Your task to perform on an android device: turn on improve location accuracy Image 0: 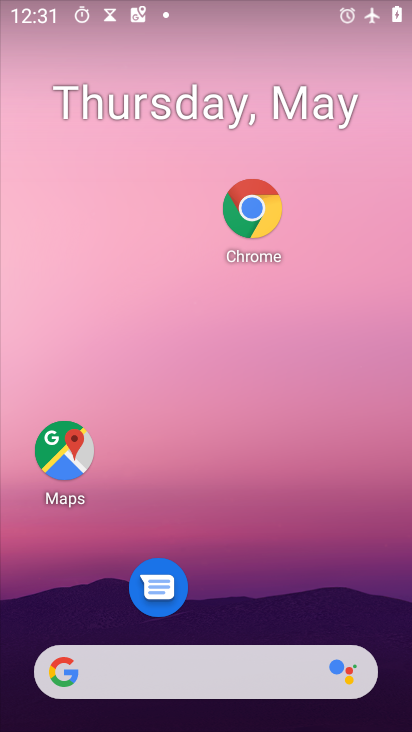
Step 0: drag from (248, 592) to (210, 36)
Your task to perform on an android device: turn on improve location accuracy Image 1: 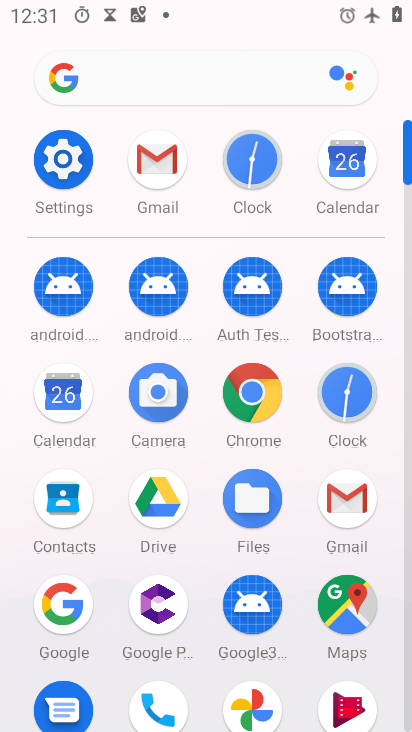
Step 1: click (57, 167)
Your task to perform on an android device: turn on improve location accuracy Image 2: 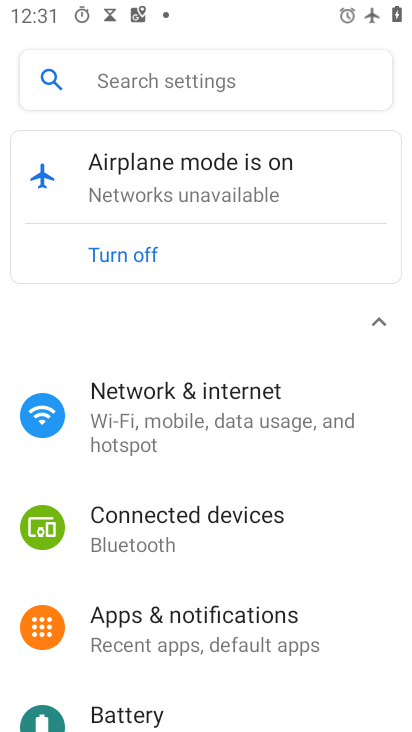
Step 2: press home button
Your task to perform on an android device: turn on improve location accuracy Image 3: 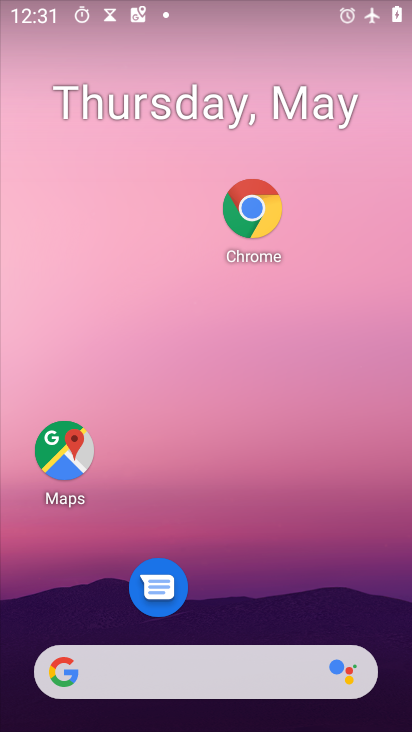
Step 3: drag from (195, 604) to (203, 133)
Your task to perform on an android device: turn on improve location accuracy Image 4: 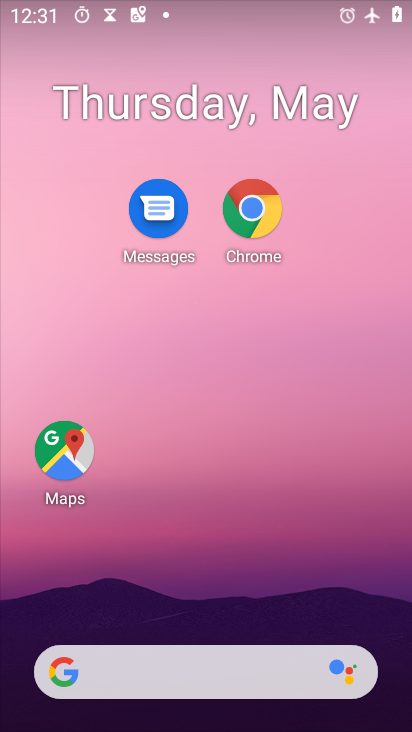
Step 4: drag from (215, 520) to (221, 9)
Your task to perform on an android device: turn on improve location accuracy Image 5: 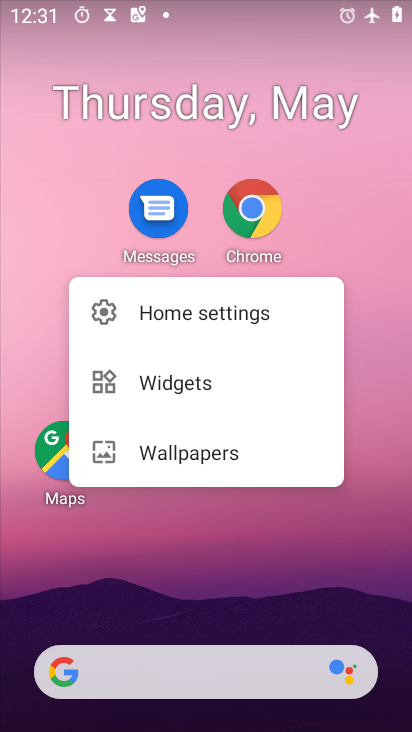
Step 5: click (205, 591)
Your task to perform on an android device: turn on improve location accuracy Image 6: 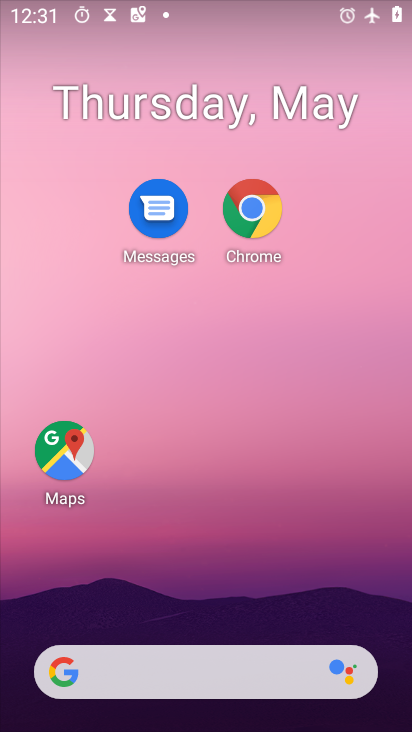
Step 6: drag from (208, 589) to (228, 5)
Your task to perform on an android device: turn on improve location accuracy Image 7: 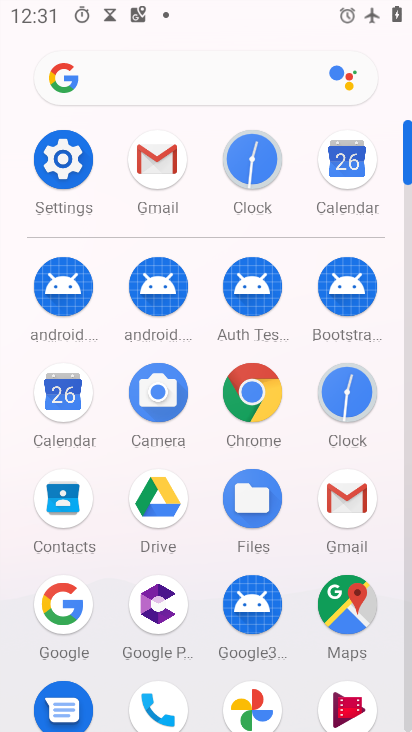
Step 7: click (56, 167)
Your task to perform on an android device: turn on improve location accuracy Image 8: 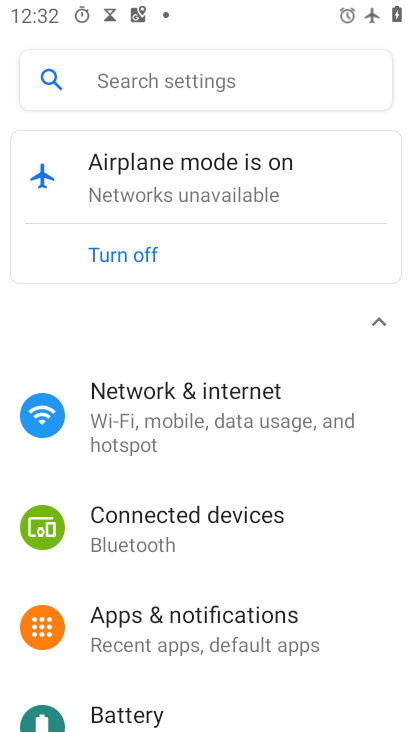
Step 8: drag from (186, 604) to (216, 347)
Your task to perform on an android device: turn on improve location accuracy Image 9: 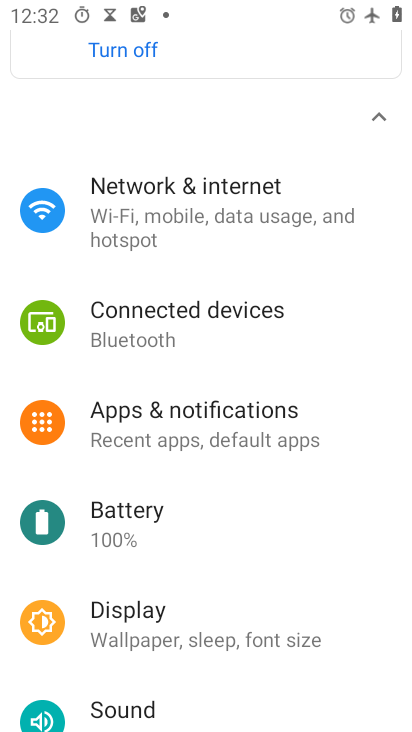
Step 9: drag from (221, 692) to (179, 330)
Your task to perform on an android device: turn on improve location accuracy Image 10: 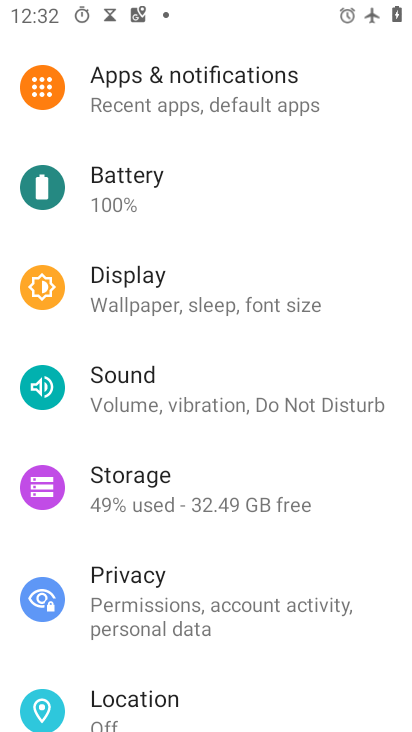
Step 10: click (147, 711)
Your task to perform on an android device: turn on improve location accuracy Image 11: 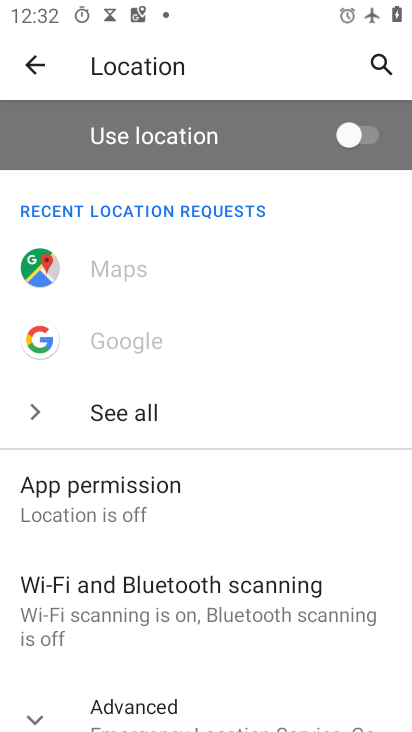
Step 11: click (122, 721)
Your task to perform on an android device: turn on improve location accuracy Image 12: 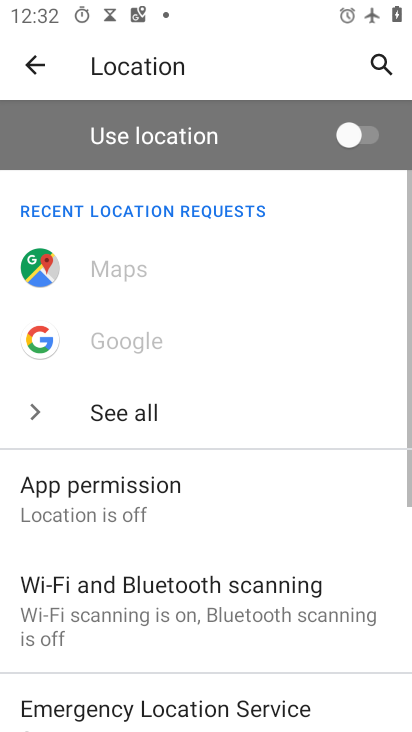
Step 12: drag from (137, 699) to (156, 280)
Your task to perform on an android device: turn on improve location accuracy Image 13: 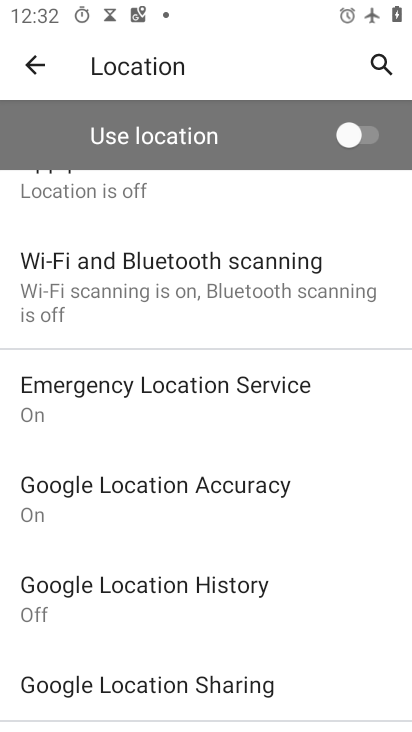
Step 13: click (126, 488)
Your task to perform on an android device: turn on improve location accuracy Image 14: 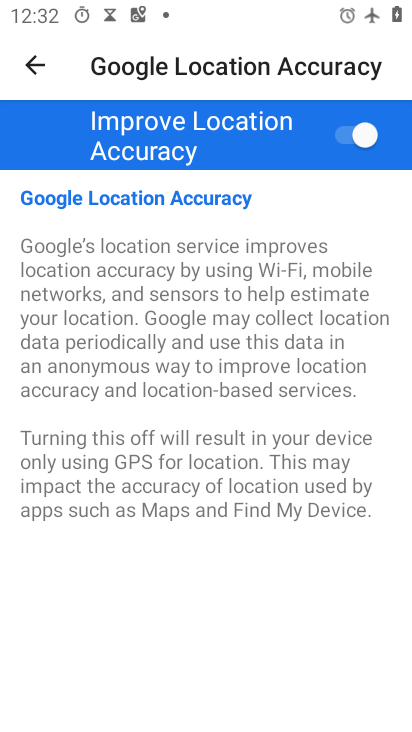
Step 14: task complete